Your task to perform on an android device: What's the weather today? Image 0: 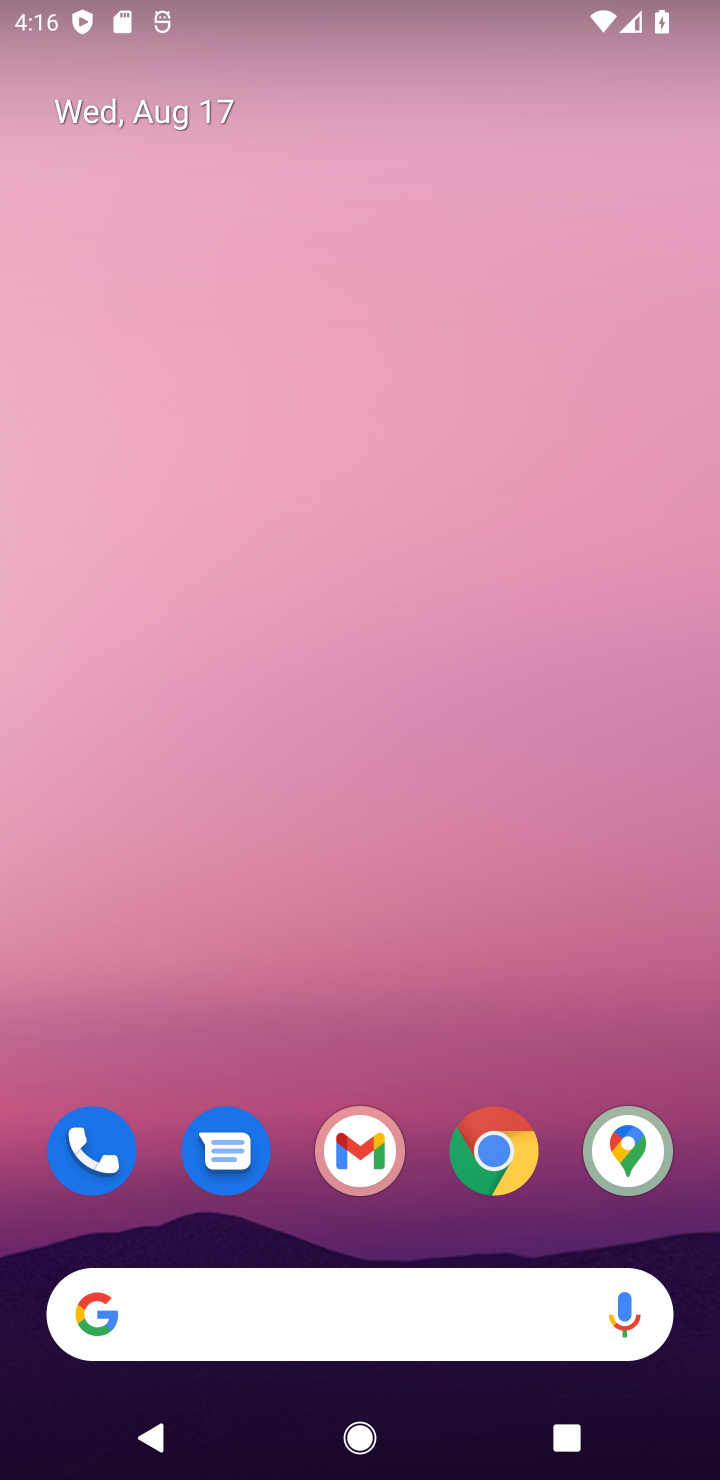
Step 0: click (429, 1294)
Your task to perform on an android device: What's the weather today? Image 1: 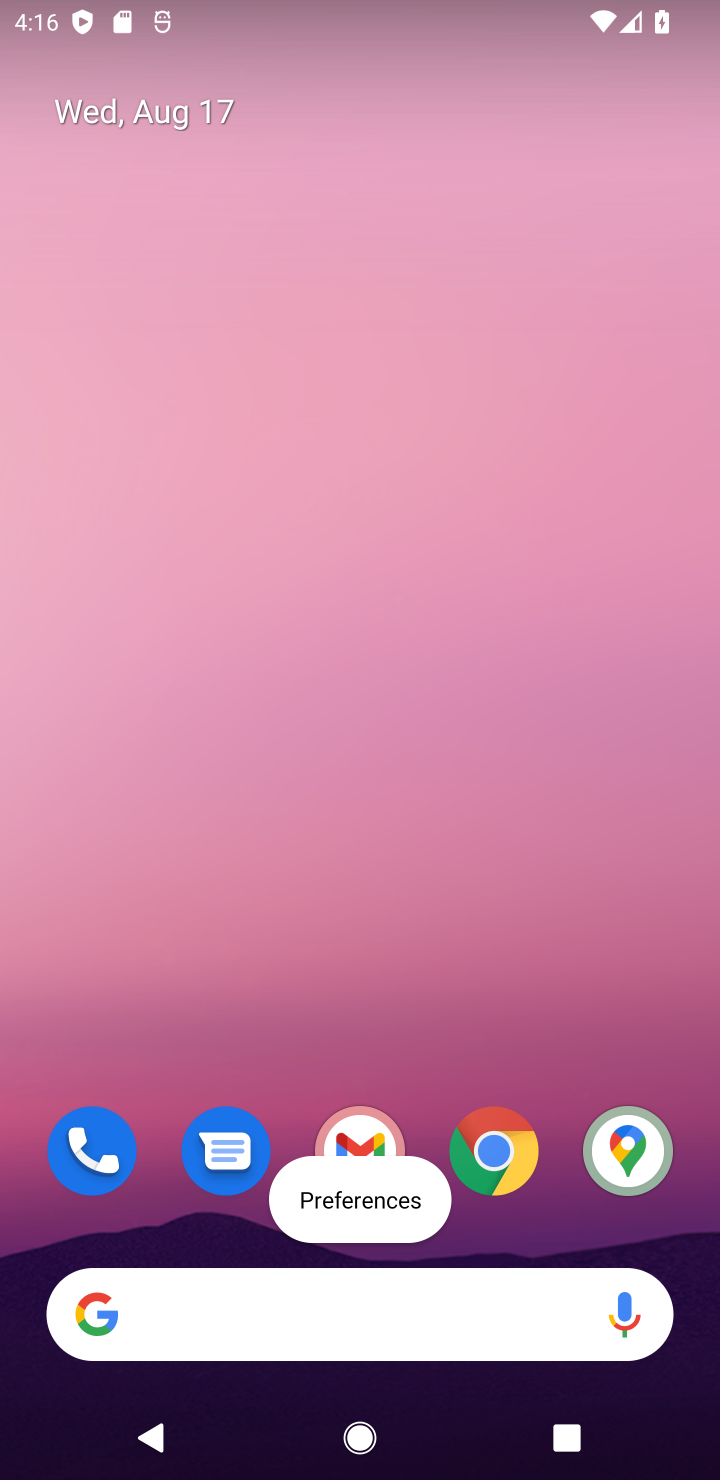
Step 1: click (429, 1294)
Your task to perform on an android device: What's the weather today? Image 2: 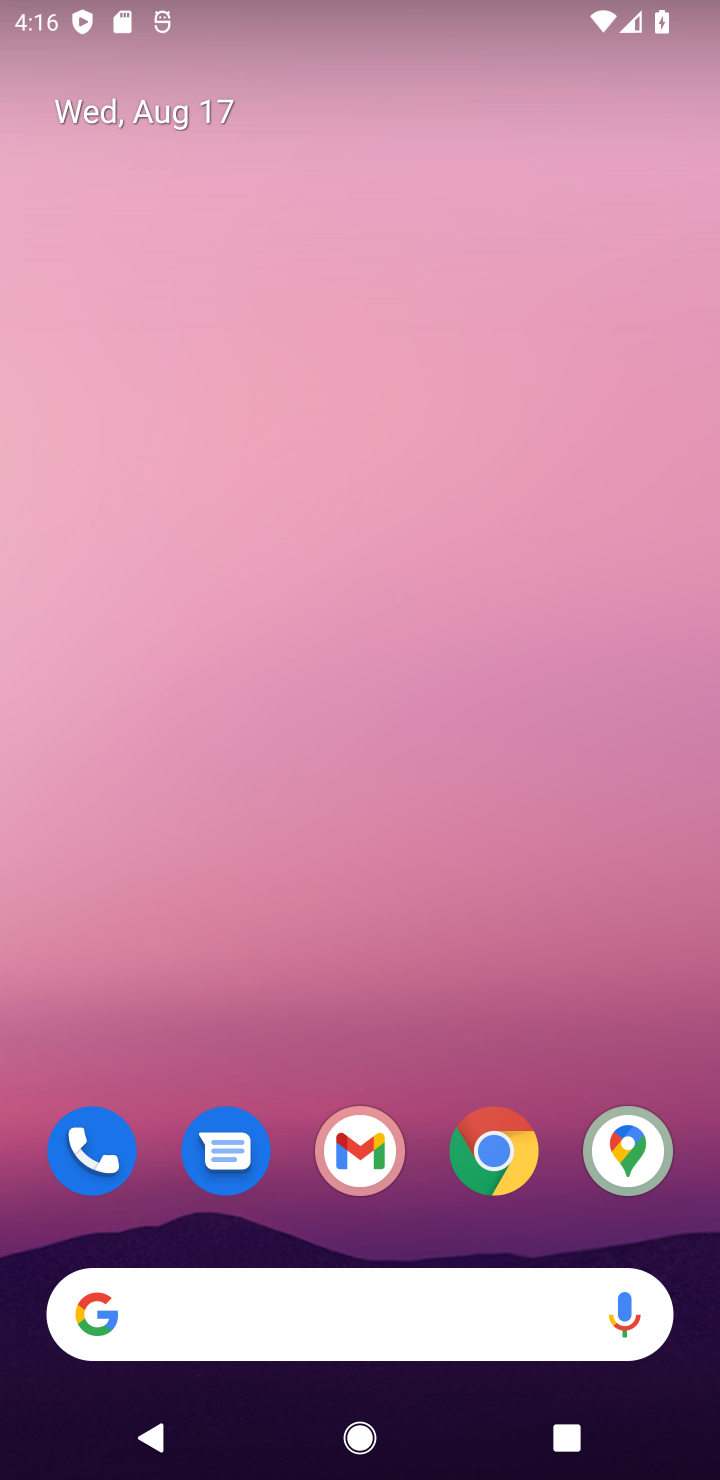
Step 2: click (208, 1290)
Your task to perform on an android device: What's the weather today? Image 3: 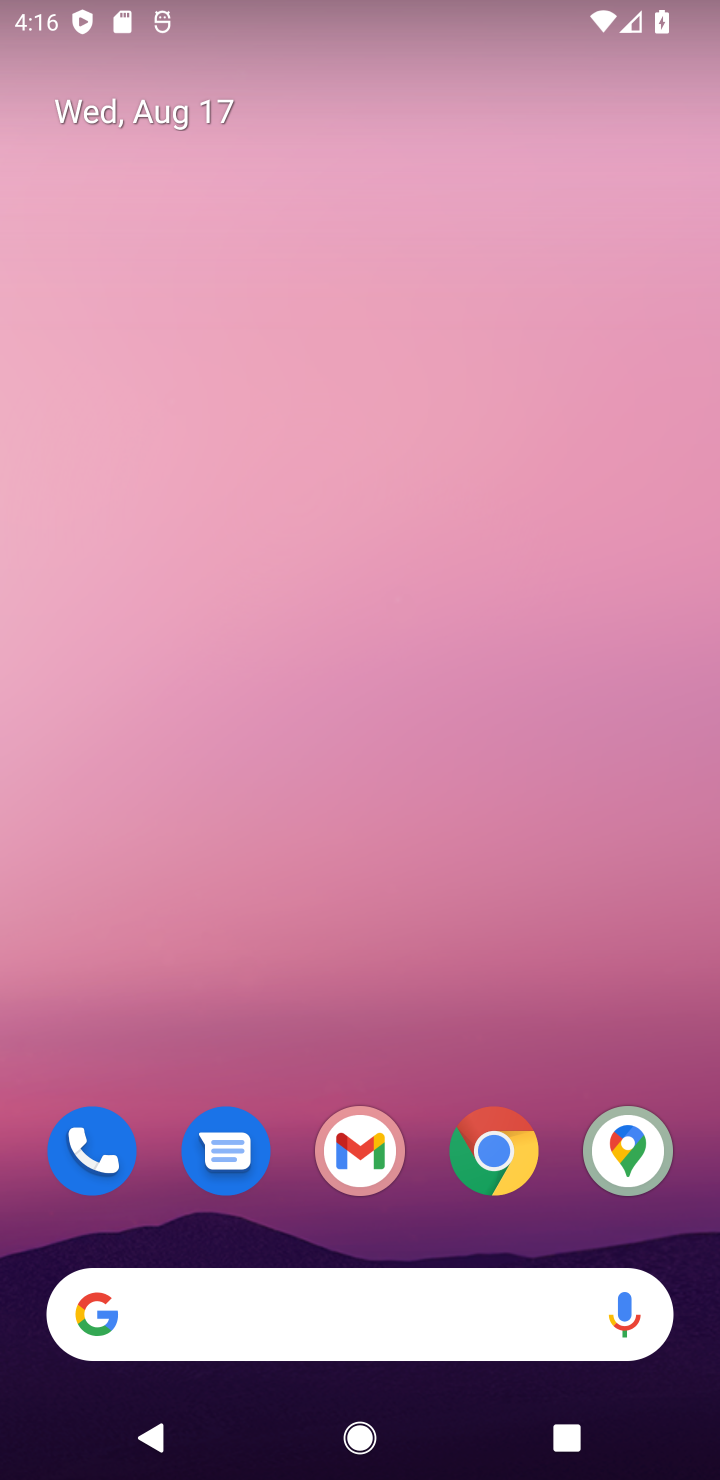
Step 3: click (208, 1290)
Your task to perform on an android device: What's the weather today? Image 4: 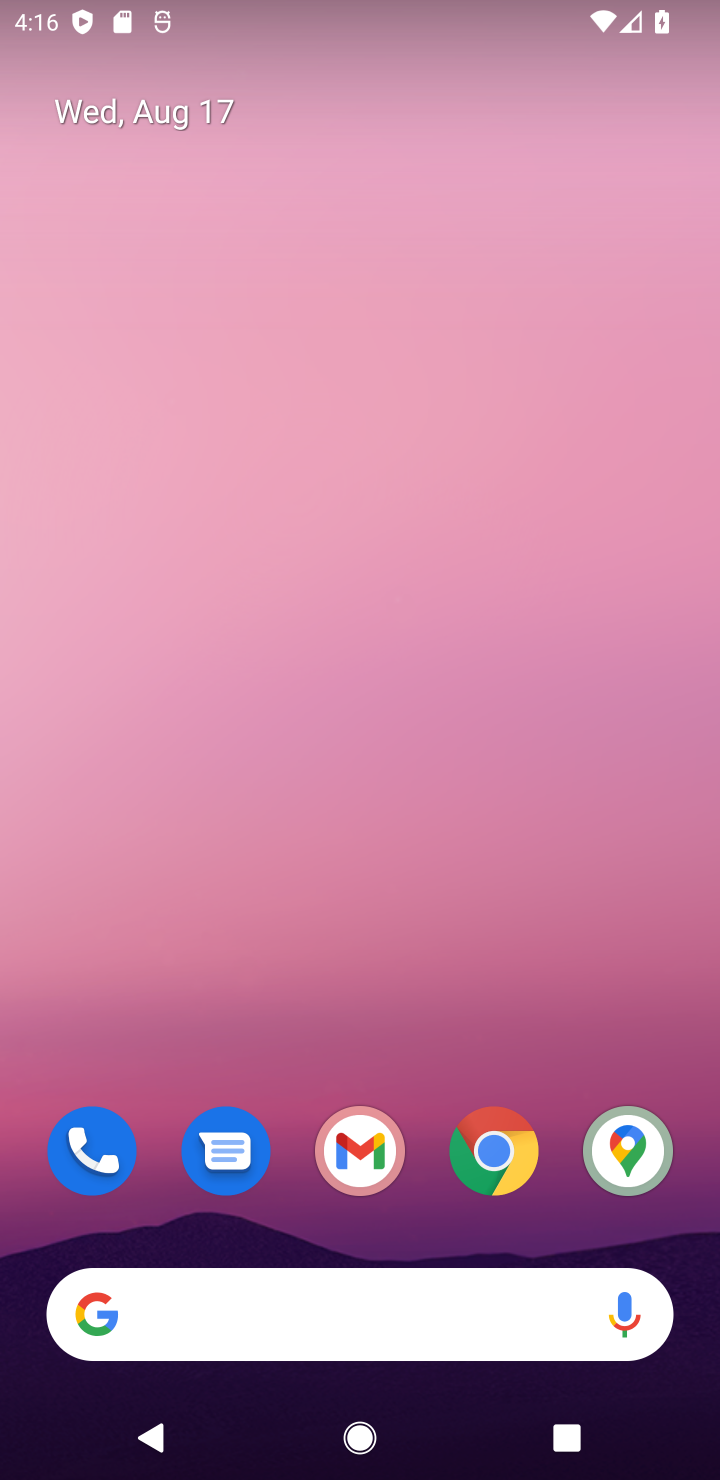
Step 4: task complete